Your task to perform on an android device: clear history in the chrome app Image 0: 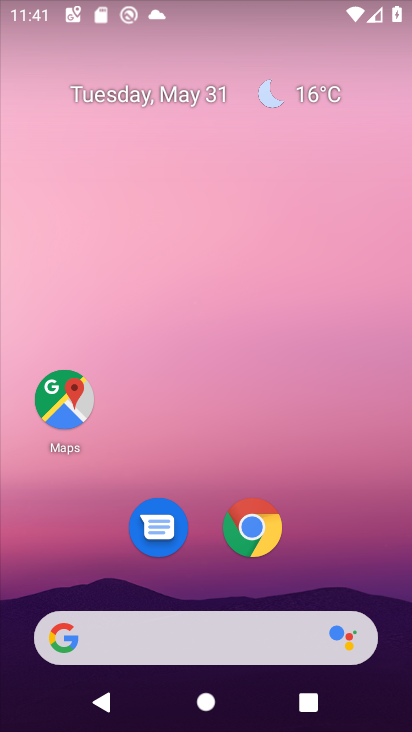
Step 0: click (248, 537)
Your task to perform on an android device: clear history in the chrome app Image 1: 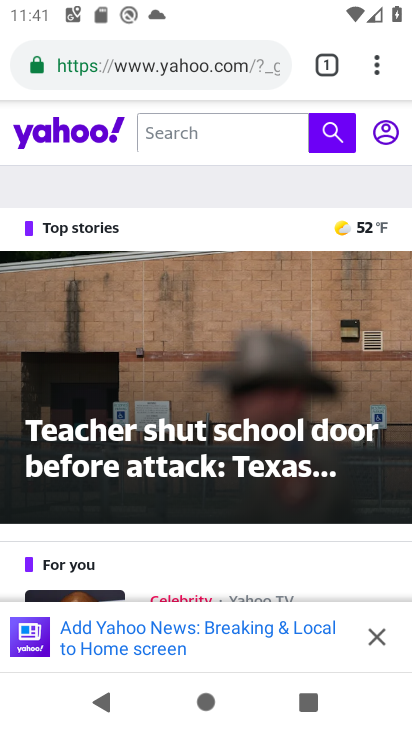
Step 1: click (376, 70)
Your task to perform on an android device: clear history in the chrome app Image 2: 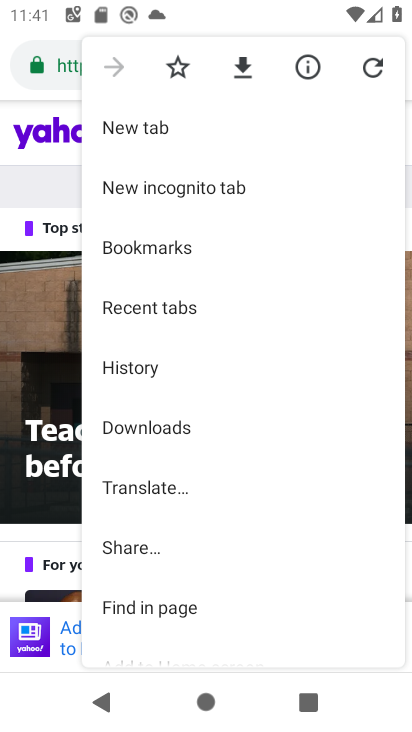
Step 2: drag from (251, 589) to (250, 194)
Your task to perform on an android device: clear history in the chrome app Image 3: 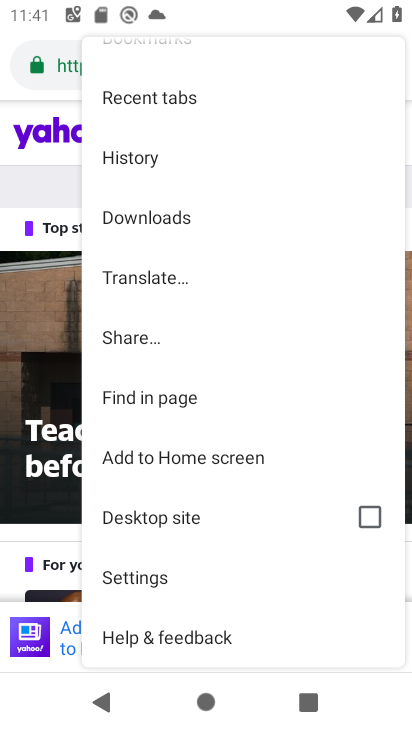
Step 3: click (128, 584)
Your task to perform on an android device: clear history in the chrome app Image 4: 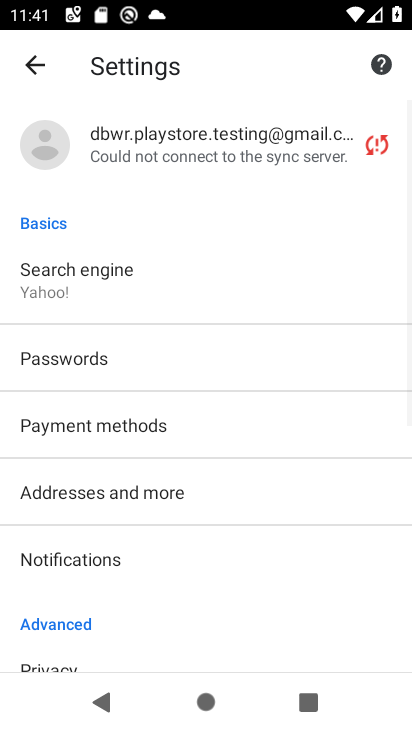
Step 4: drag from (137, 574) to (147, 378)
Your task to perform on an android device: clear history in the chrome app Image 5: 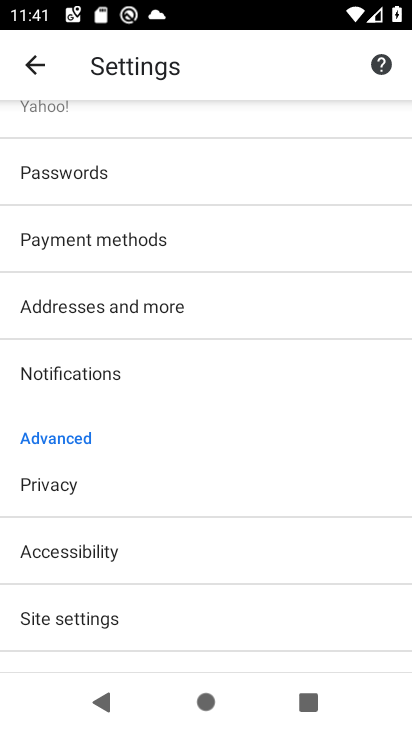
Step 5: click (34, 494)
Your task to perform on an android device: clear history in the chrome app Image 6: 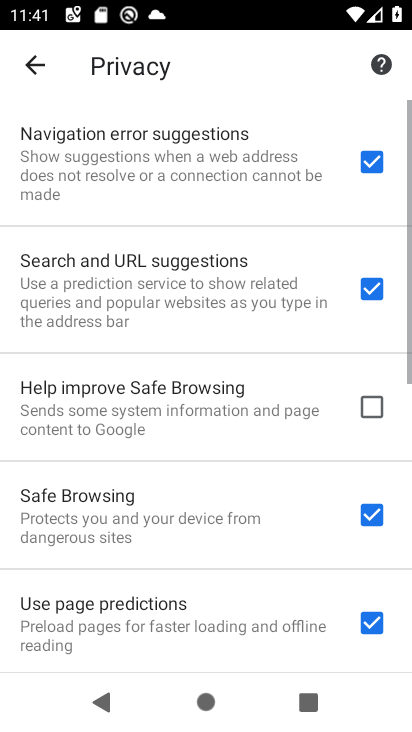
Step 6: drag from (170, 540) to (181, 108)
Your task to perform on an android device: clear history in the chrome app Image 7: 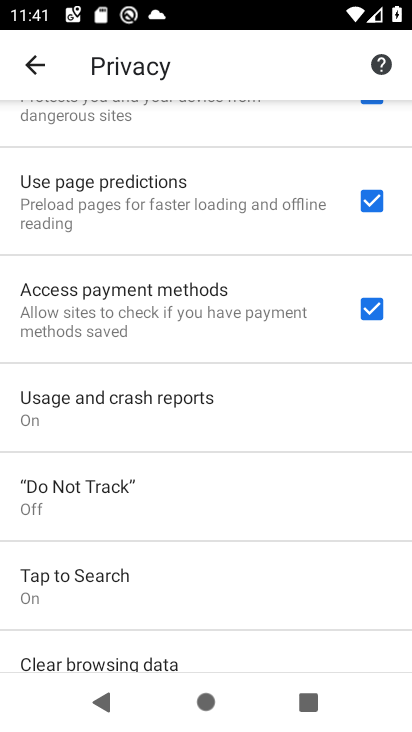
Step 7: drag from (136, 520) to (146, 153)
Your task to perform on an android device: clear history in the chrome app Image 8: 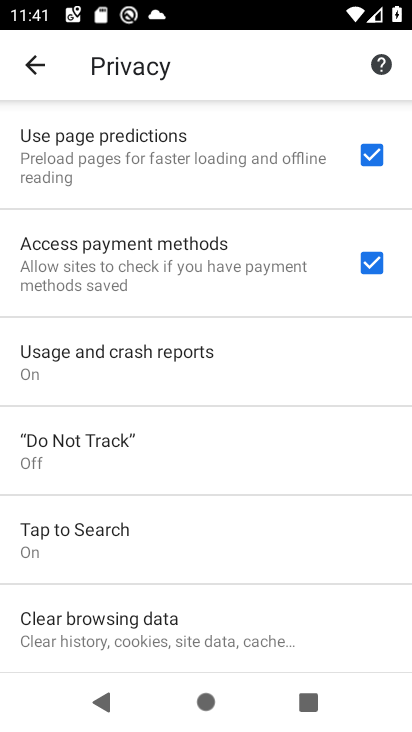
Step 8: click (103, 624)
Your task to perform on an android device: clear history in the chrome app Image 9: 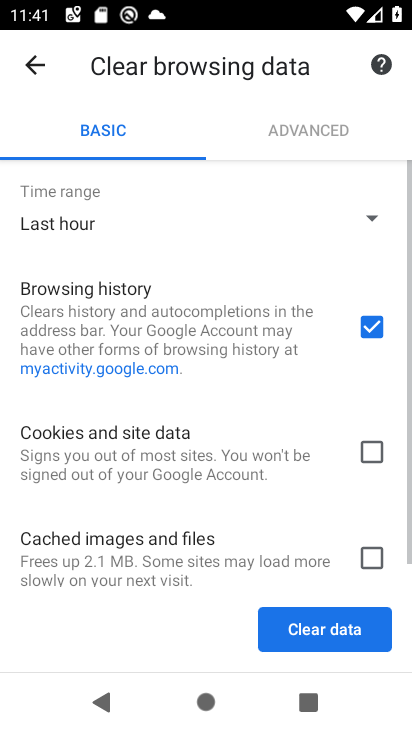
Step 9: click (281, 629)
Your task to perform on an android device: clear history in the chrome app Image 10: 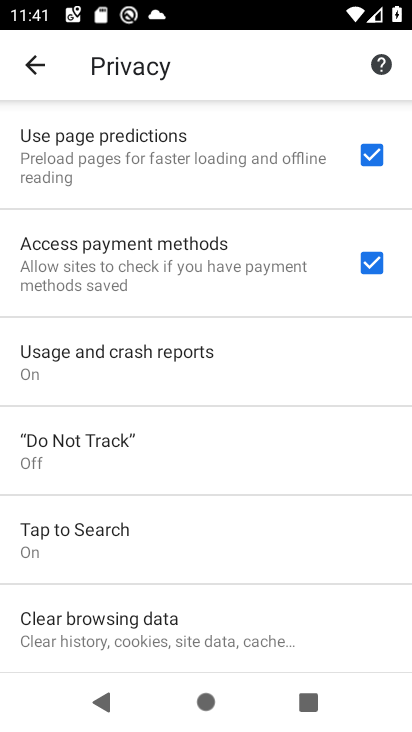
Step 10: task complete